Your task to perform on an android device: Check the news Image 0: 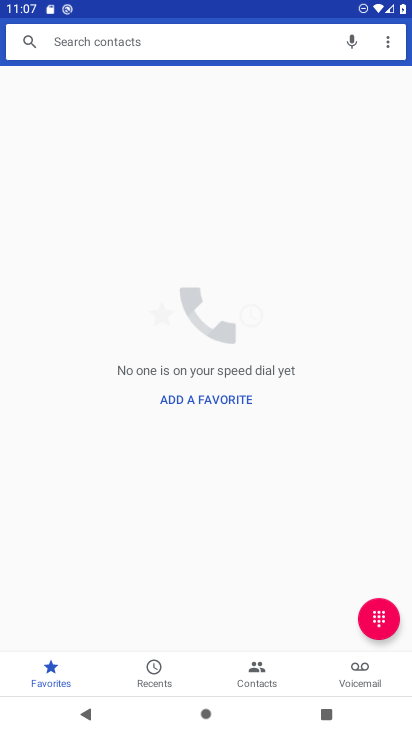
Step 0: press home button
Your task to perform on an android device: Check the news Image 1: 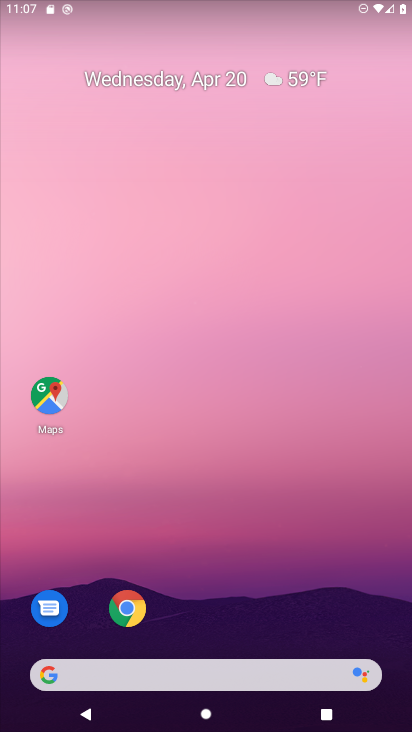
Step 1: task complete